Your task to perform on an android device: toggle sleep mode Image 0: 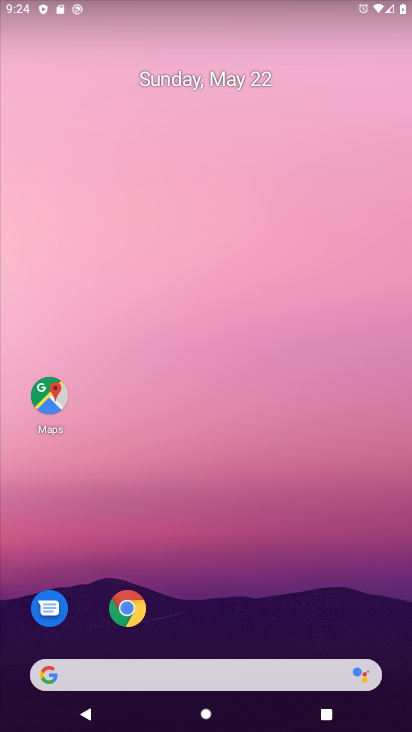
Step 0: drag from (233, 544) to (158, 9)
Your task to perform on an android device: toggle sleep mode Image 1: 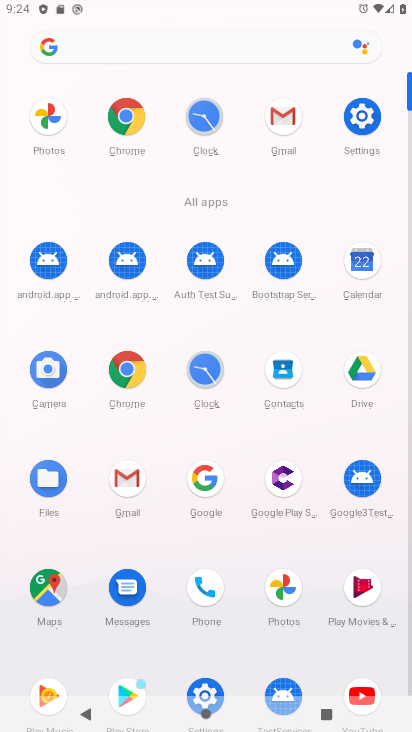
Step 1: drag from (13, 555) to (14, 307)
Your task to perform on an android device: toggle sleep mode Image 2: 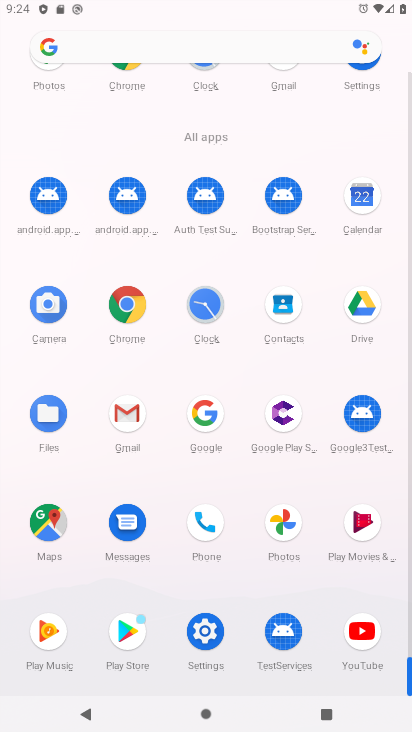
Step 2: click (202, 629)
Your task to perform on an android device: toggle sleep mode Image 3: 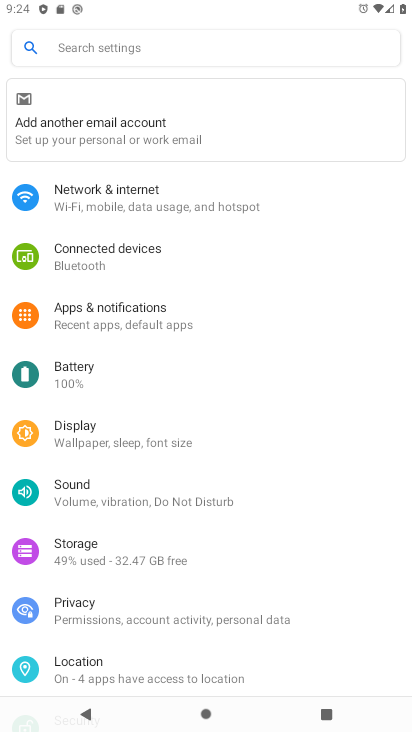
Step 3: click (124, 425)
Your task to perform on an android device: toggle sleep mode Image 4: 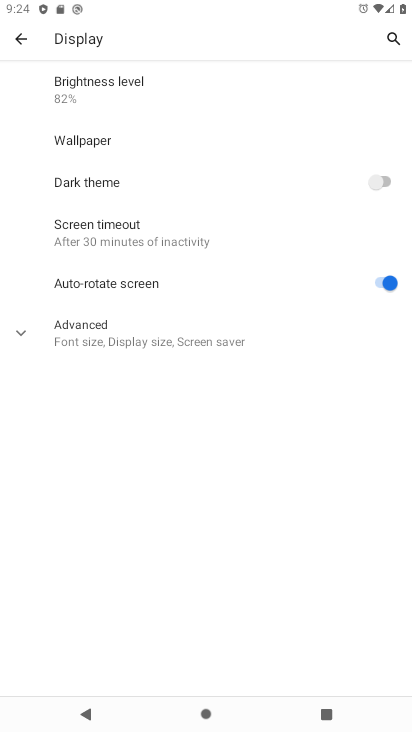
Step 4: click (19, 343)
Your task to perform on an android device: toggle sleep mode Image 5: 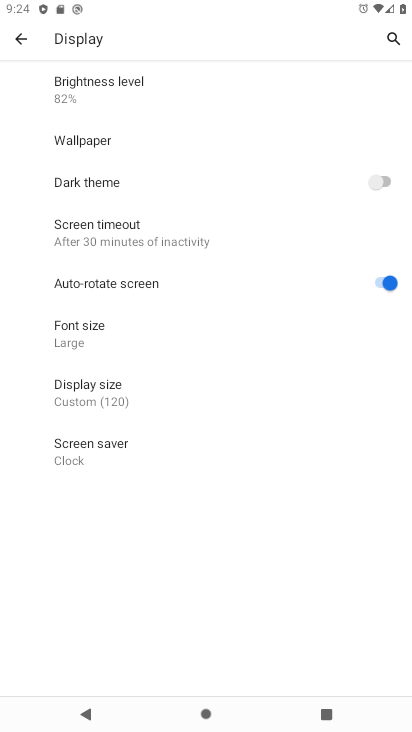
Step 5: task complete